Your task to perform on an android device: add a contact Image 0: 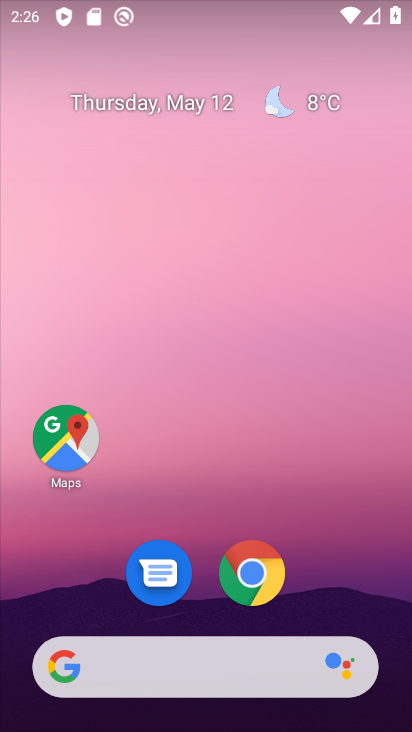
Step 0: drag from (324, 577) to (354, 70)
Your task to perform on an android device: add a contact Image 1: 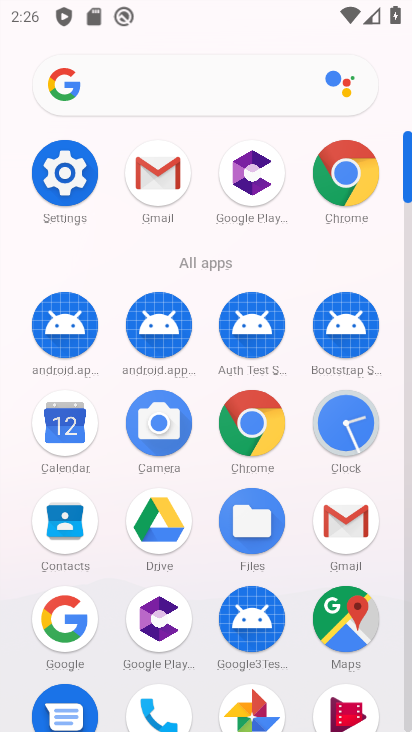
Step 1: click (67, 525)
Your task to perform on an android device: add a contact Image 2: 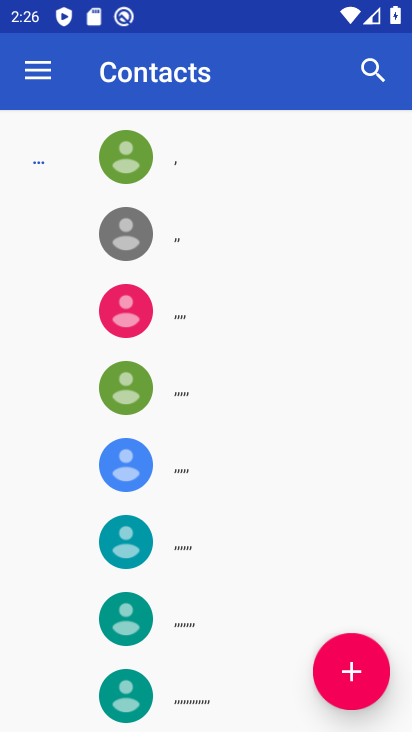
Step 2: click (363, 671)
Your task to perform on an android device: add a contact Image 3: 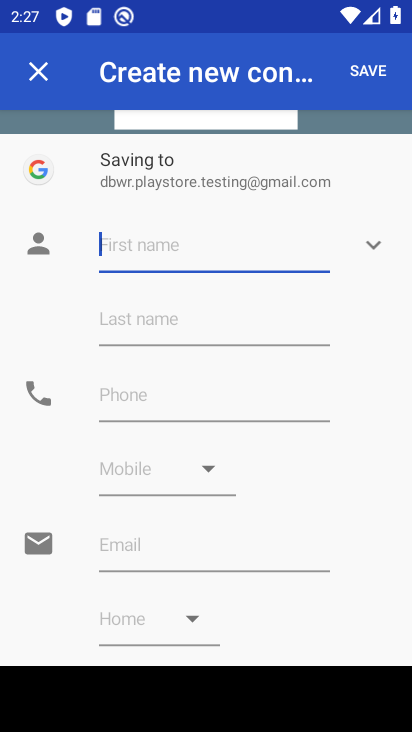
Step 3: type "rgdh"
Your task to perform on an android device: add a contact Image 4: 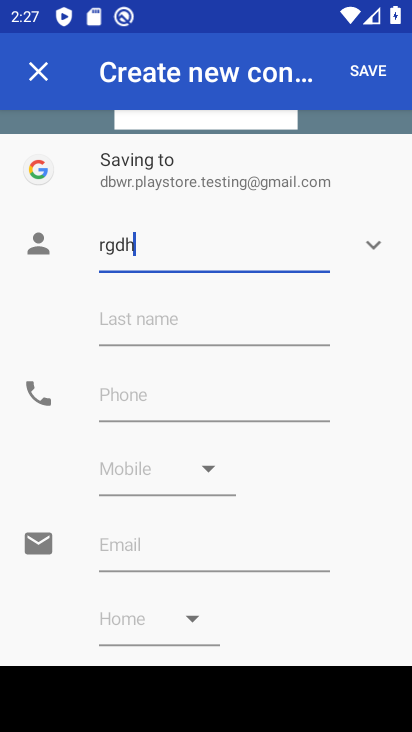
Step 4: click (130, 400)
Your task to perform on an android device: add a contact Image 5: 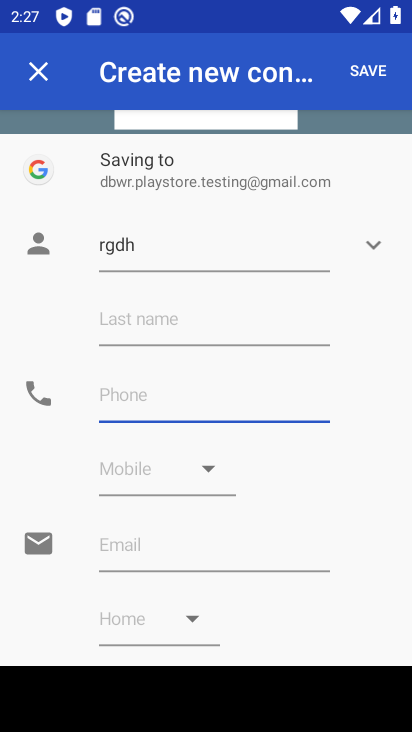
Step 5: type "9876"
Your task to perform on an android device: add a contact Image 6: 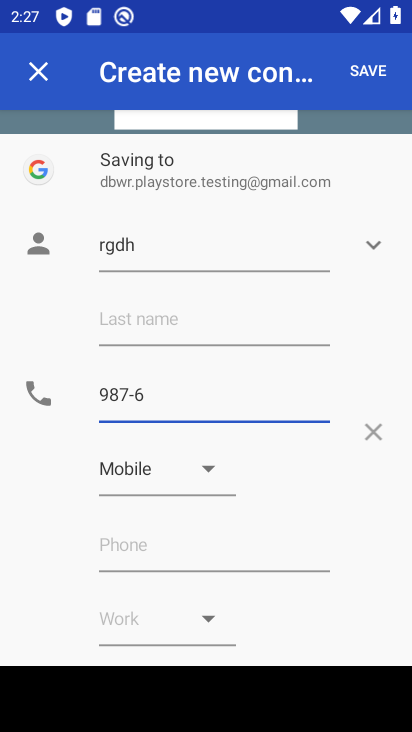
Step 6: click (370, 69)
Your task to perform on an android device: add a contact Image 7: 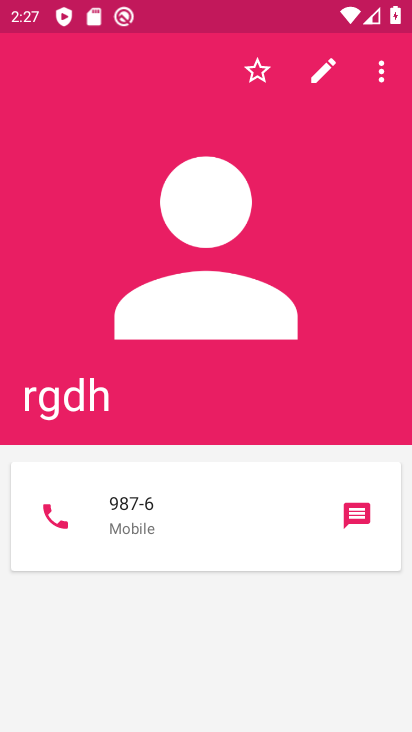
Step 7: task complete